Your task to perform on an android device: Check the weather Image 0: 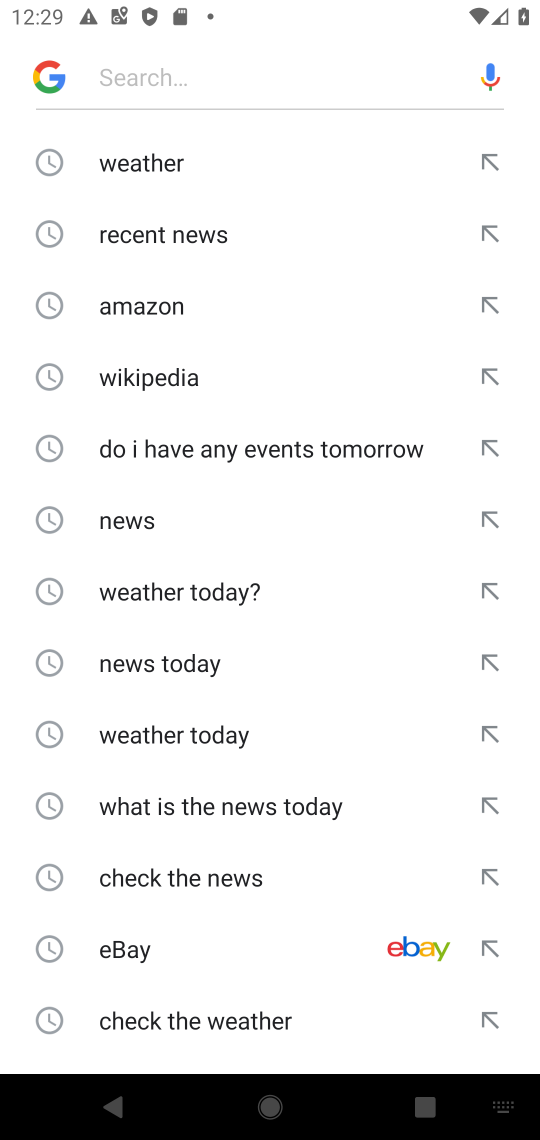
Step 0: click (145, 158)
Your task to perform on an android device: Check the weather Image 1: 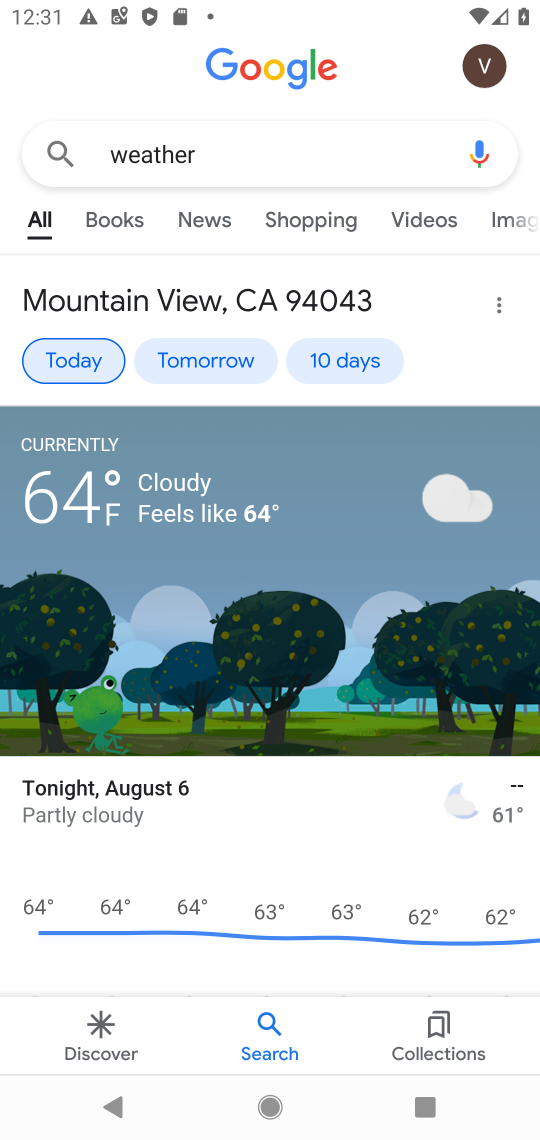
Step 1: click (78, 360)
Your task to perform on an android device: Check the weather Image 2: 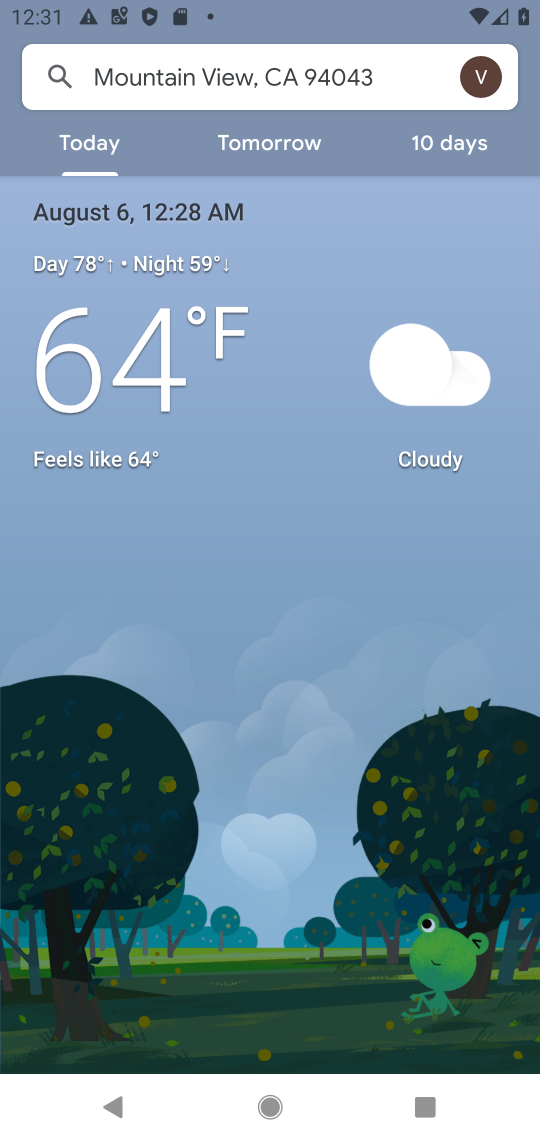
Step 2: task complete